Your task to perform on an android device: Search for vegetarian restaurants on Maps Image 0: 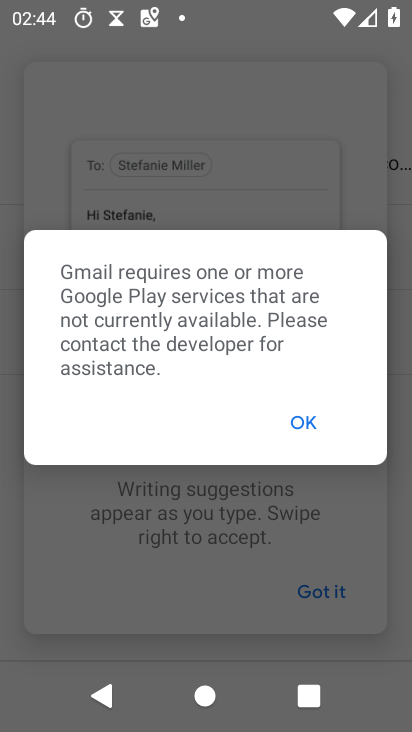
Step 0: press home button
Your task to perform on an android device: Search for vegetarian restaurants on Maps Image 1: 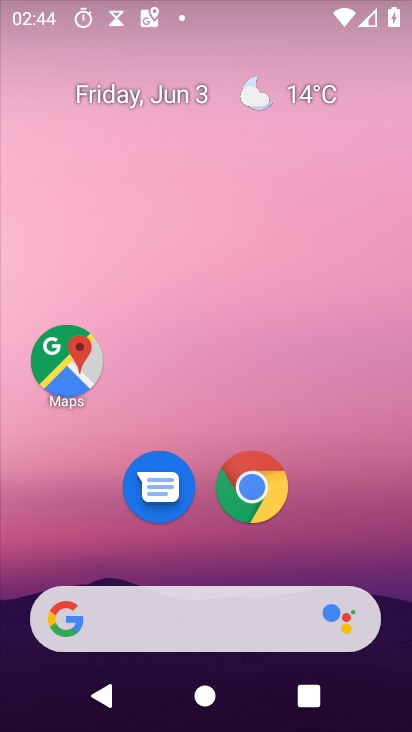
Step 1: click (62, 358)
Your task to perform on an android device: Search for vegetarian restaurants on Maps Image 2: 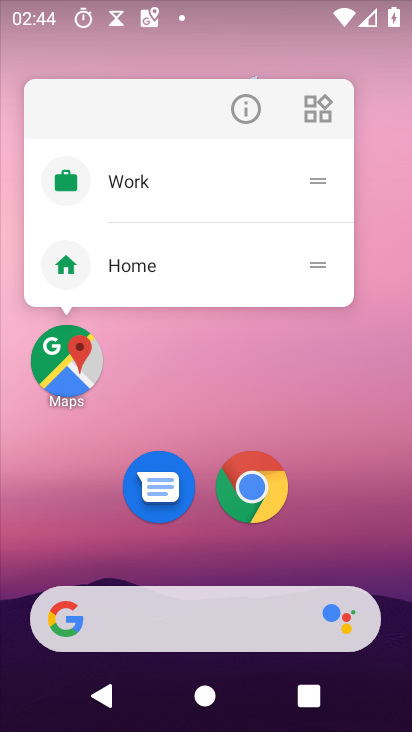
Step 2: click (26, 362)
Your task to perform on an android device: Search for vegetarian restaurants on Maps Image 3: 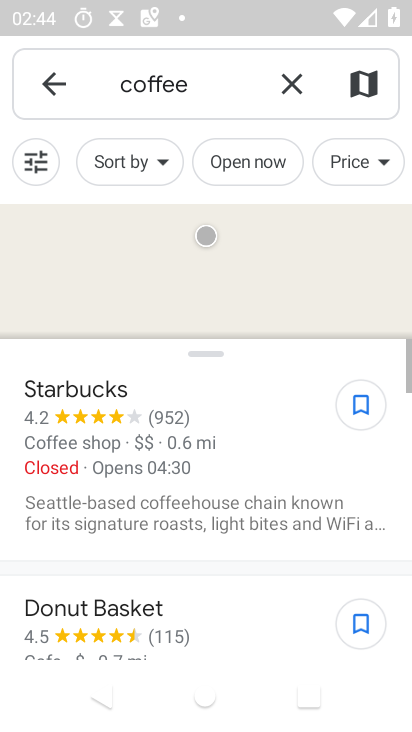
Step 3: click (283, 82)
Your task to perform on an android device: Search for vegetarian restaurants on Maps Image 4: 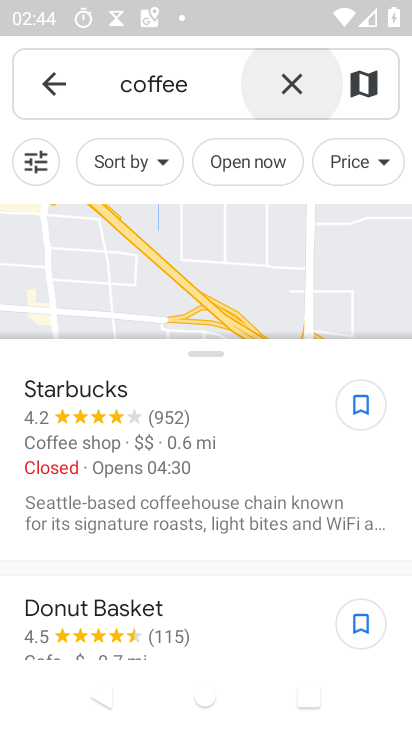
Step 4: click (165, 76)
Your task to perform on an android device: Search for vegetarian restaurants on Maps Image 5: 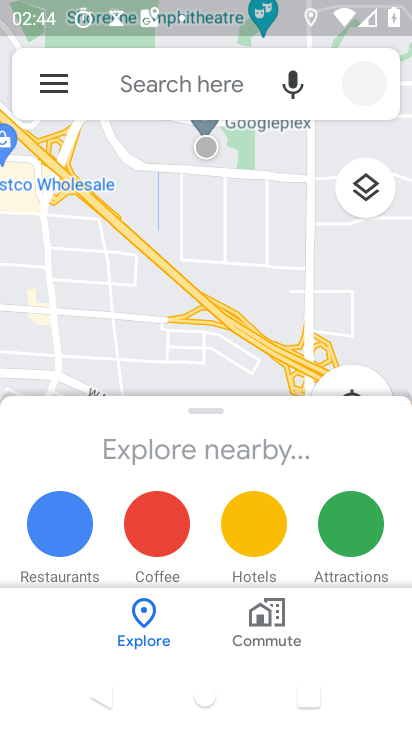
Step 5: click (147, 86)
Your task to perform on an android device: Search for vegetarian restaurants on Maps Image 6: 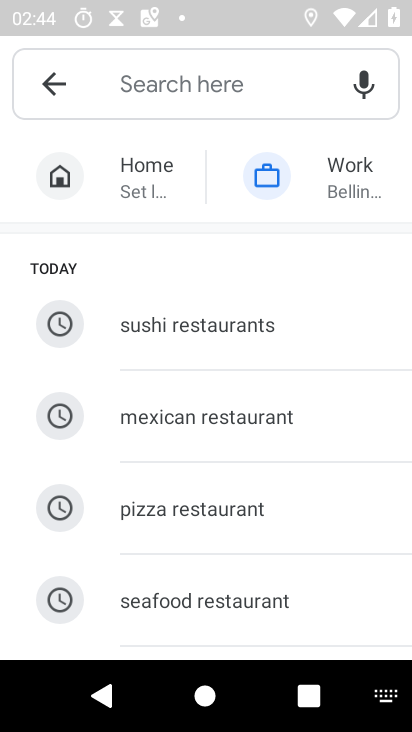
Step 6: drag from (257, 534) to (251, 180)
Your task to perform on an android device: Search for vegetarian restaurants on Maps Image 7: 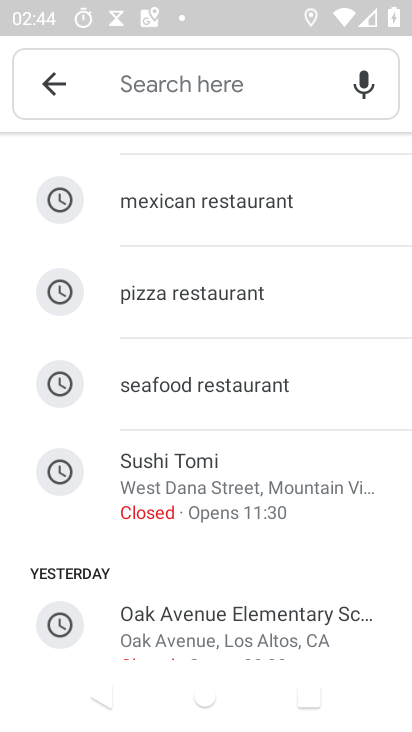
Step 7: click (216, 76)
Your task to perform on an android device: Search for vegetarian restaurants on Maps Image 8: 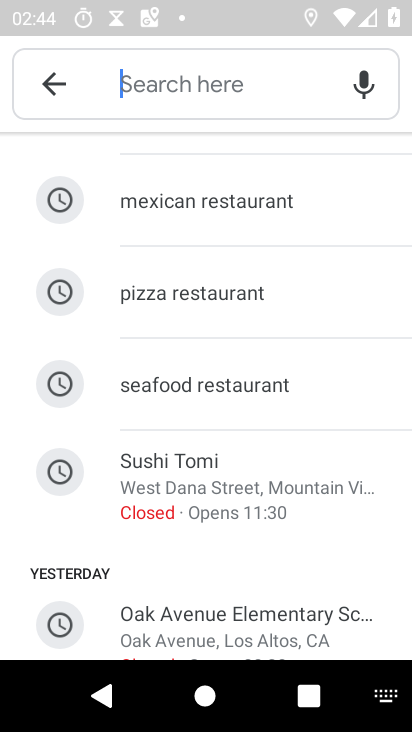
Step 8: type "vegetarian restaurants"
Your task to perform on an android device: Search for vegetarian restaurants on Maps Image 9: 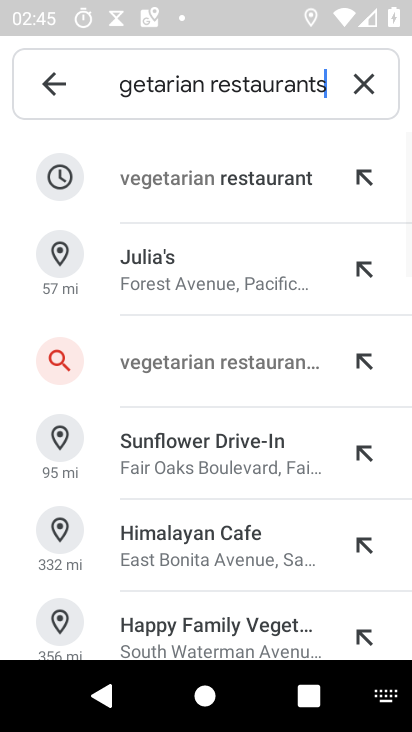
Step 9: click (221, 182)
Your task to perform on an android device: Search for vegetarian restaurants on Maps Image 10: 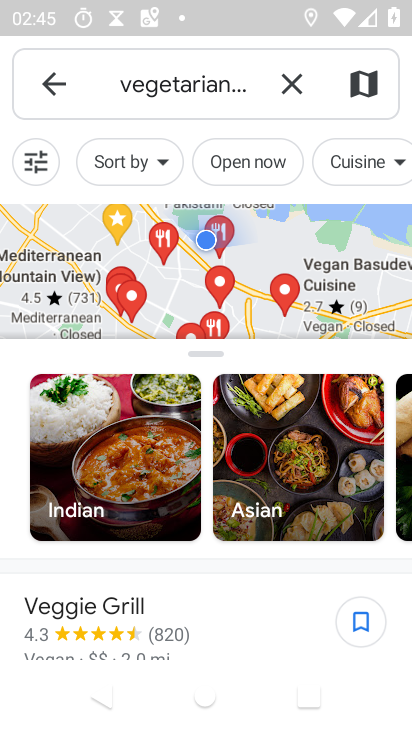
Step 10: task complete